Your task to perform on an android device: open a bookmark in the chrome app Image 0: 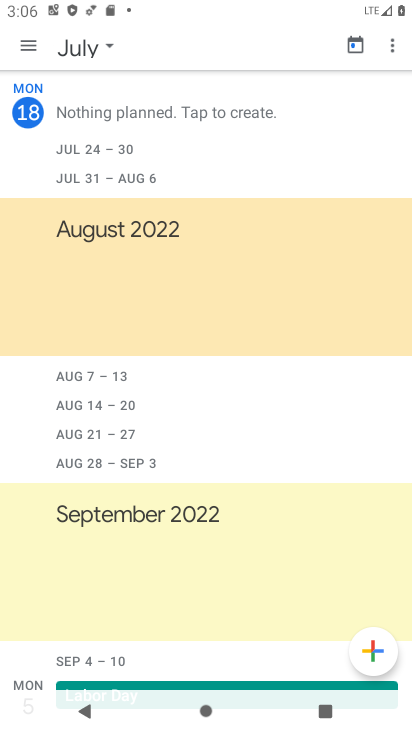
Step 0: drag from (247, 609) to (234, 458)
Your task to perform on an android device: open a bookmark in the chrome app Image 1: 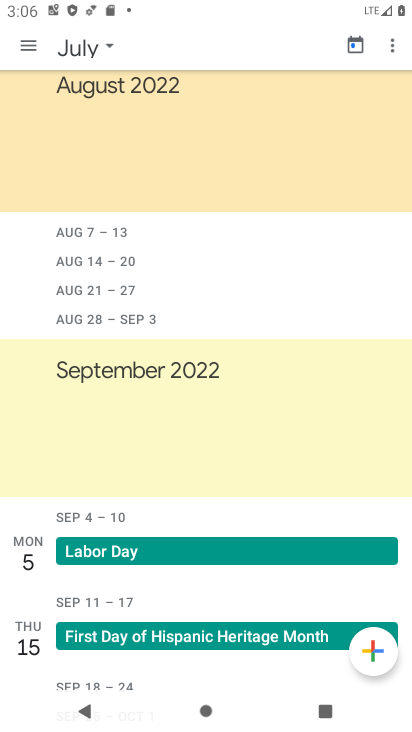
Step 1: press home button
Your task to perform on an android device: open a bookmark in the chrome app Image 2: 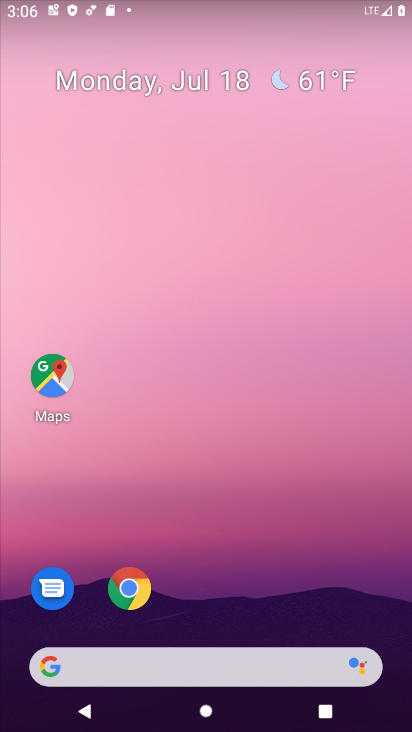
Step 2: drag from (227, 605) to (210, 183)
Your task to perform on an android device: open a bookmark in the chrome app Image 3: 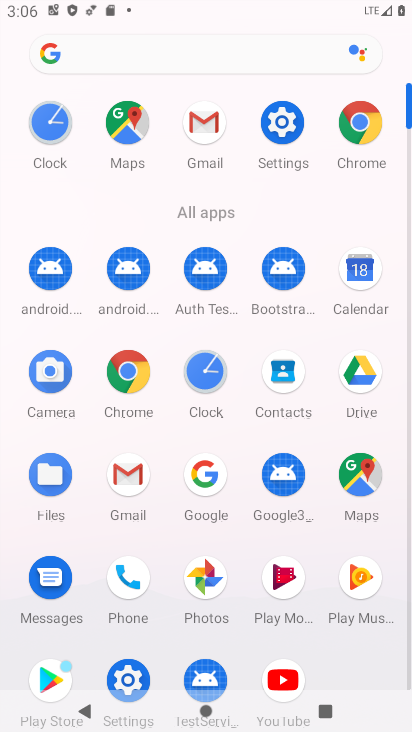
Step 3: click (120, 384)
Your task to perform on an android device: open a bookmark in the chrome app Image 4: 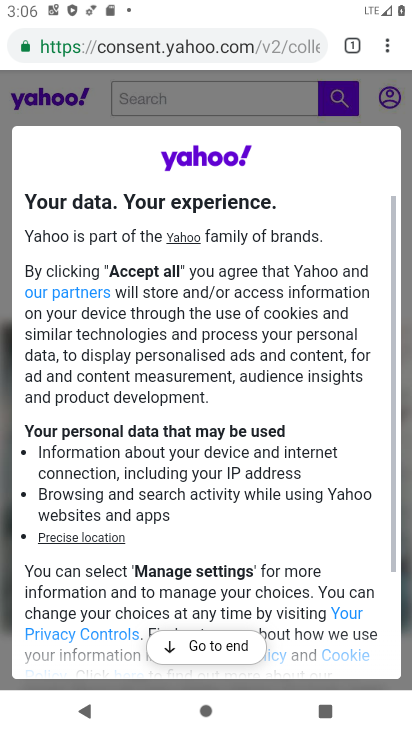
Step 4: click (180, 638)
Your task to perform on an android device: open a bookmark in the chrome app Image 5: 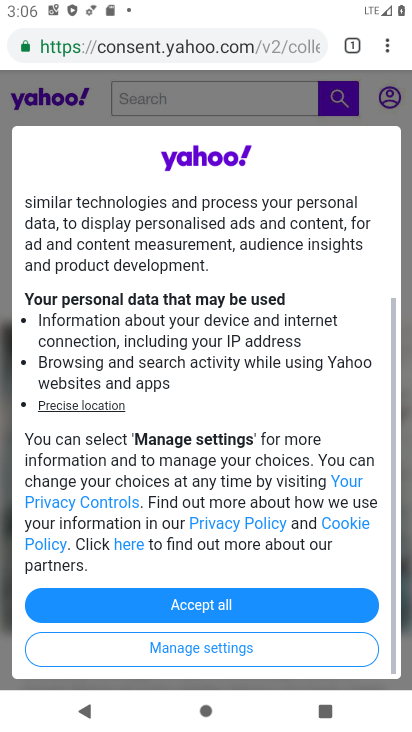
Step 5: click (236, 606)
Your task to perform on an android device: open a bookmark in the chrome app Image 6: 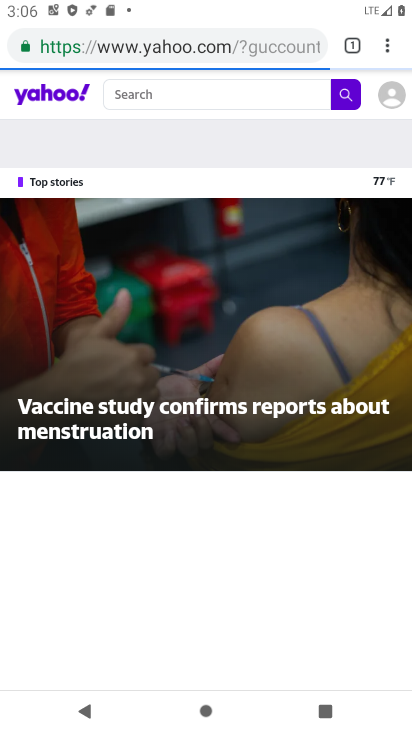
Step 6: task complete